Your task to perform on an android device: See recent photos Image 0: 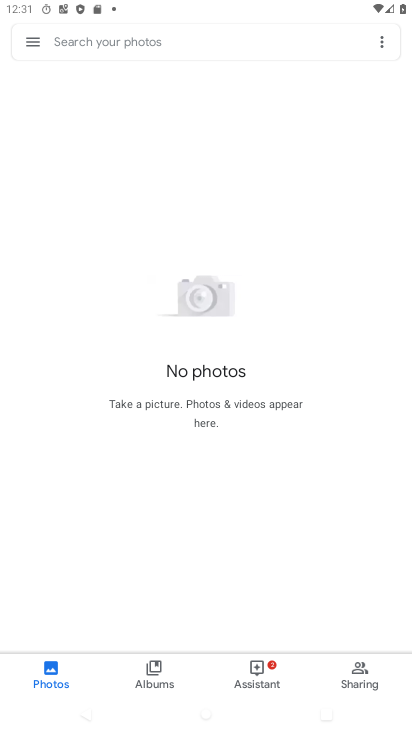
Step 0: press back button
Your task to perform on an android device: See recent photos Image 1: 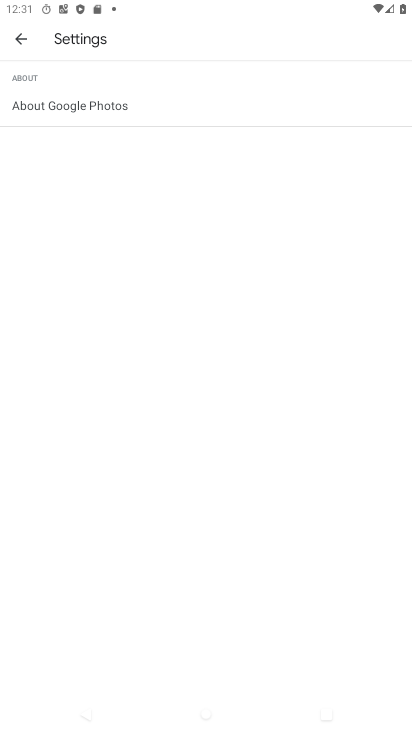
Step 1: click (15, 34)
Your task to perform on an android device: See recent photos Image 2: 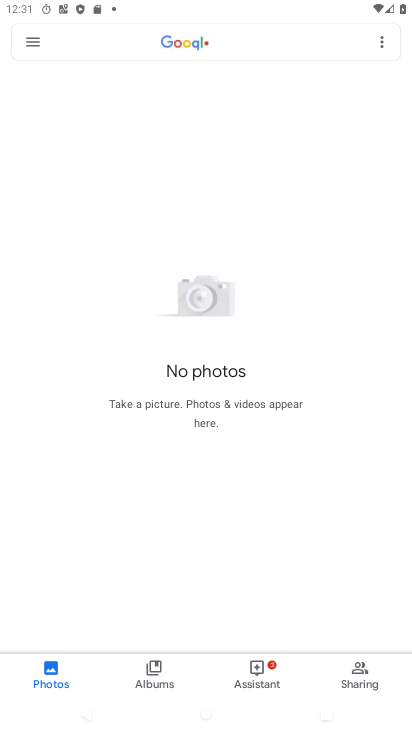
Step 2: click (37, 46)
Your task to perform on an android device: See recent photos Image 3: 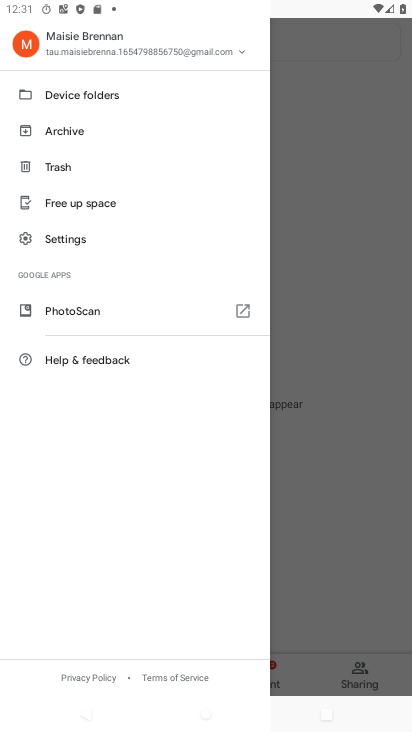
Step 3: click (298, 415)
Your task to perform on an android device: See recent photos Image 4: 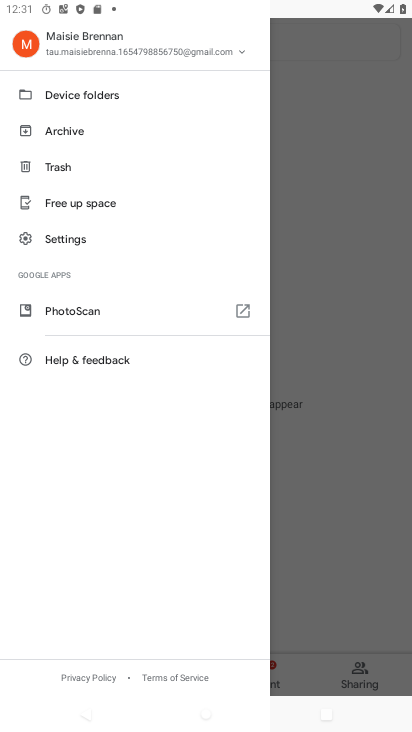
Step 4: click (297, 416)
Your task to perform on an android device: See recent photos Image 5: 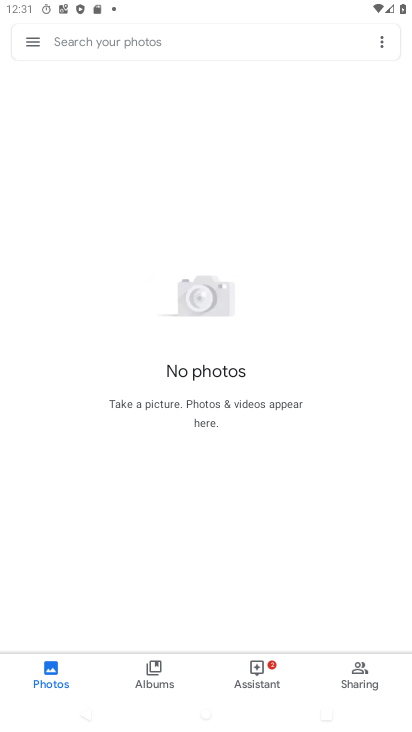
Step 5: click (46, 668)
Your task to perform on an android device: See recent photos Image 6: 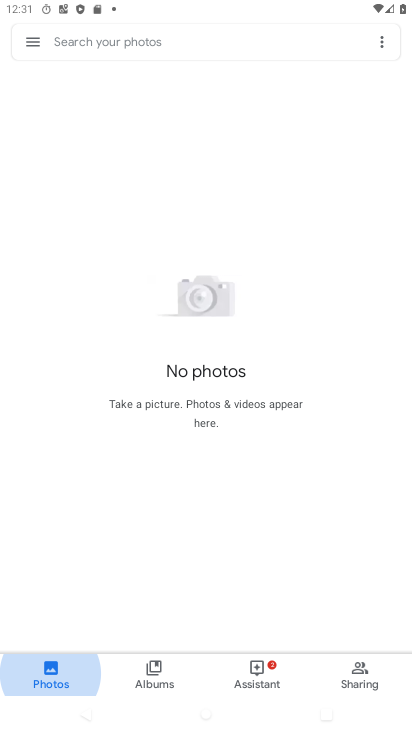
Step 6: click (33, 655)
Your task to perform on an android device: See recent photos Image 7: 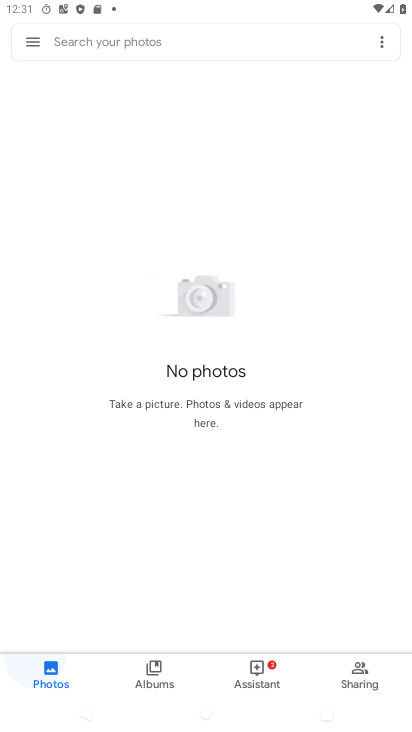
Step 7: click (34, 660)
Your task to perform on an android device: See recent photos Image 8: 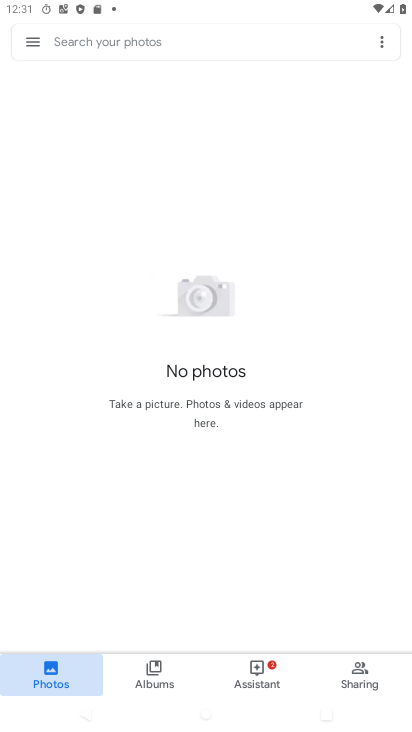
Step 8: click (38, 658)
Your task to perform on an android device: See recent photos Image 9: 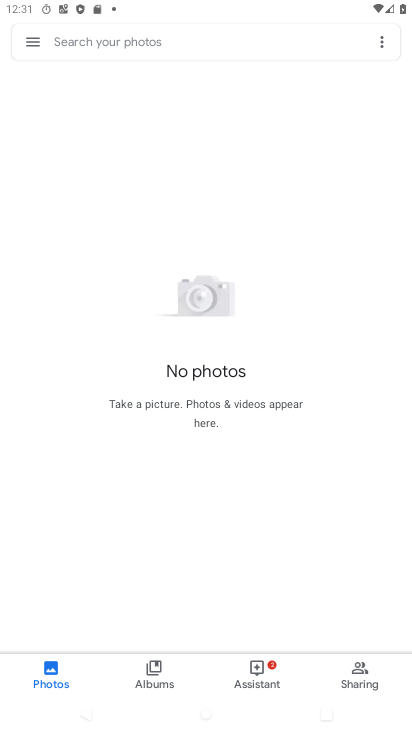
Step 9: task complete